Your task to perform on an android device: open chrome and create a bookmark for the current page Image 0: 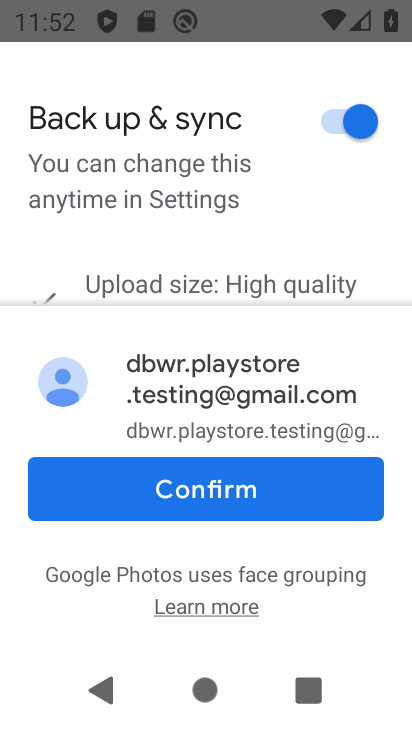
Step 0: press home button
Your task to perform on an android device: open chrome and create a bookmark for the current page Image 1: 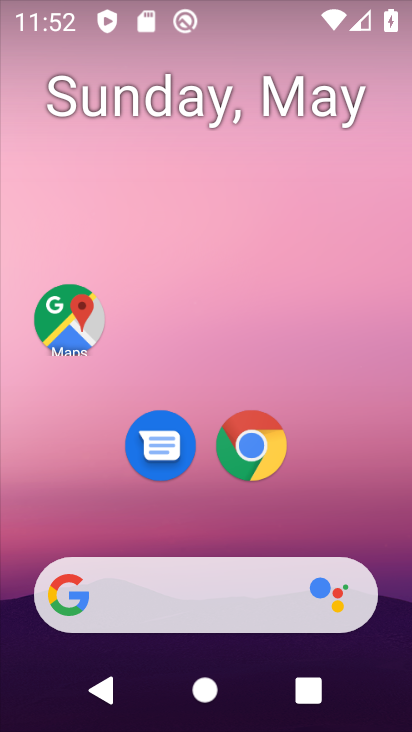
Step 1: drag from (236, 500) to (257, 2)
Your task to perform on an android device: open chrome and create a bookmark for the current page Image 2: 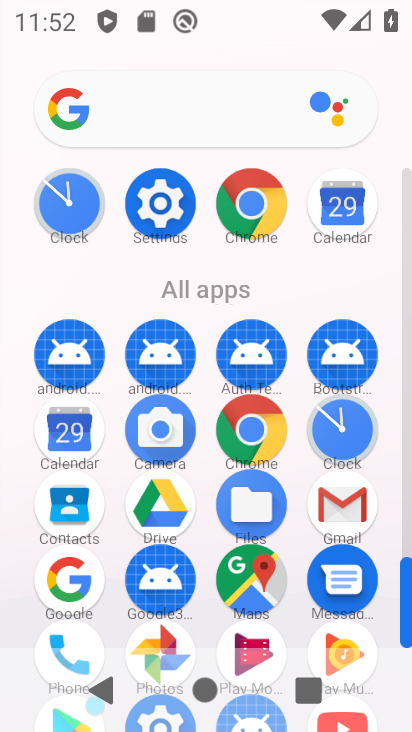
Step 2: click (250, 428)
Your task to perform on an android device: open chrome and create a bookmark for the current page Image 3: 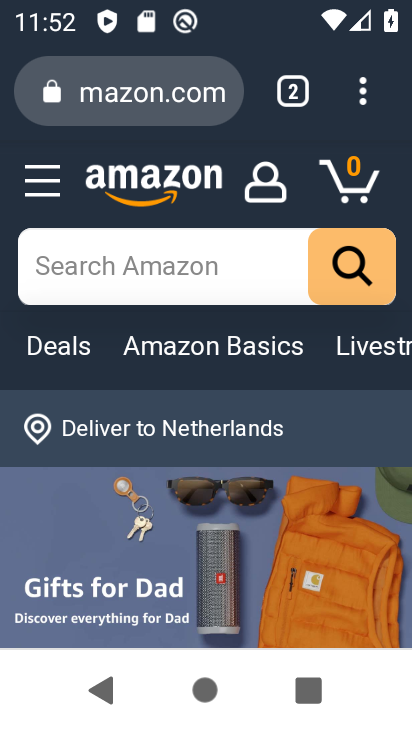
Step 3: task complete